Your task to perform on an android device: turn on wifi Image 0: 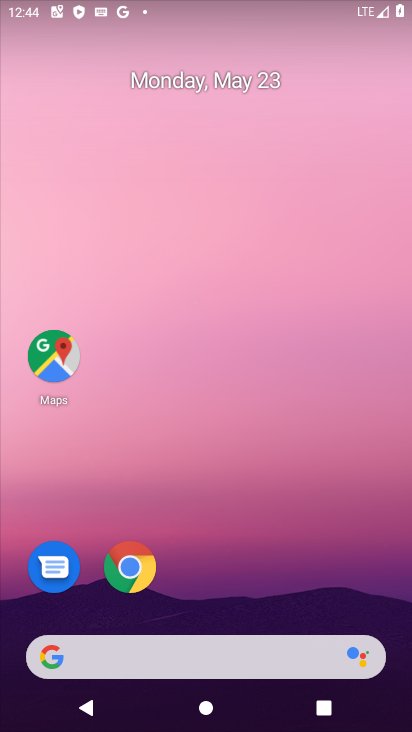
Step 0: drag from (230, 610) to (164, 91)
Your task to perform on an android device: turn on wifi Image 1: 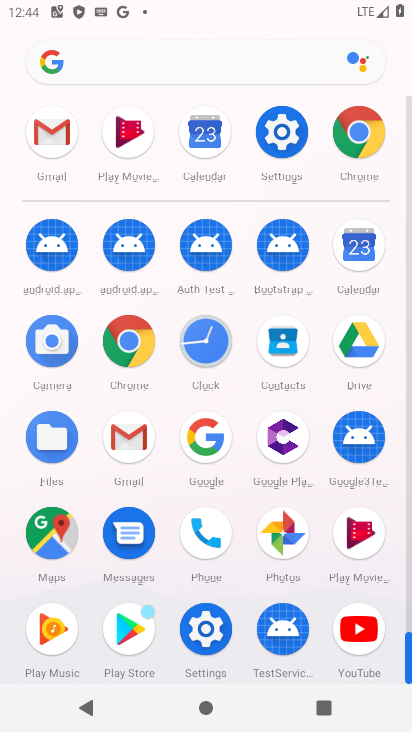
Step 1: click (277, 153)
Your task to perform on an android device: turn on wifi Image 2: 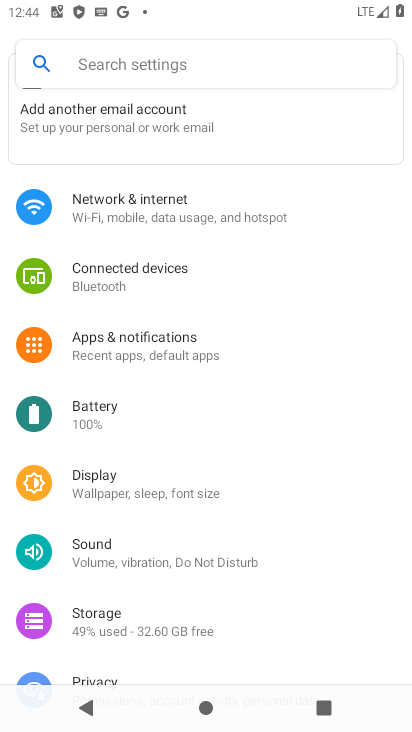
Step 2: click (264, 206)
Your task to perform on an android device: turn on wifi Image 3: 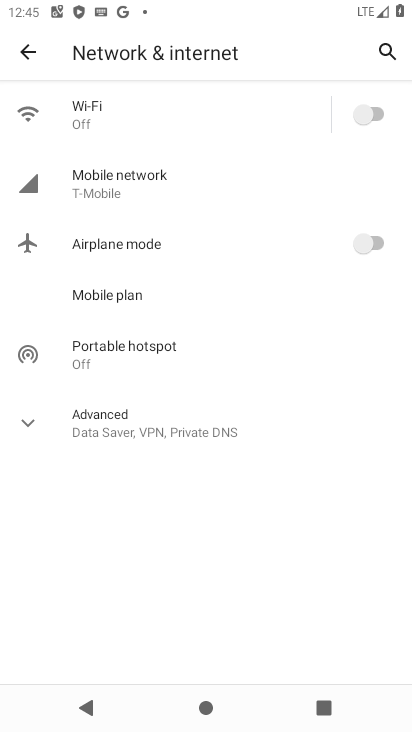
Step 3: click (355, 113)
Your task to perform on an android device: turn on wifi Image 4: 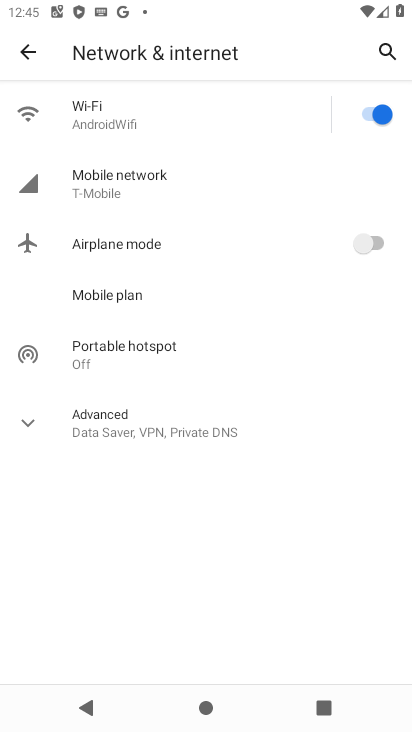
Step 4: task complete